Your task to perform on an android device: turn on notifications settings in the gmail app Image 0: 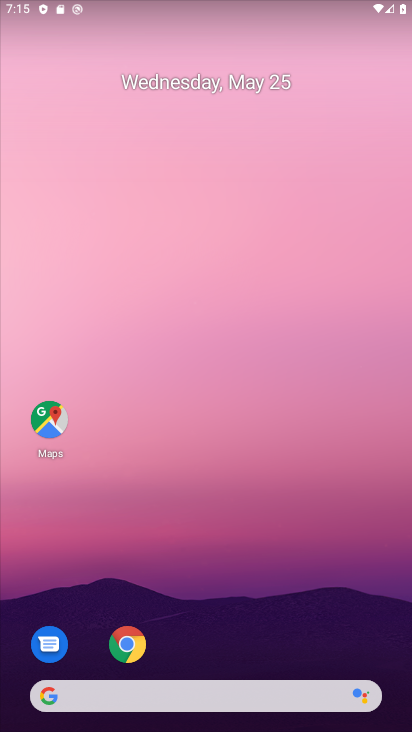
Step 0: drag from (170, 681) to (69, 15)
Your task to perform on an android device: turn on notifications settings in the gmail app Image 1: 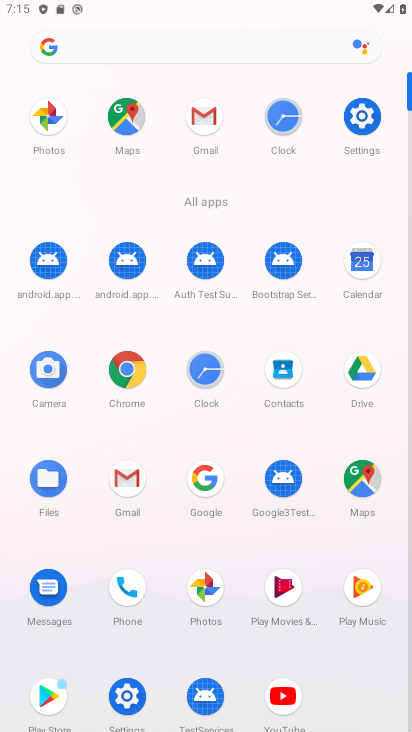
Step 1: click (128, 497)
Your task to perform on an android device: turn on notifications settings in the gmail app Image 2: 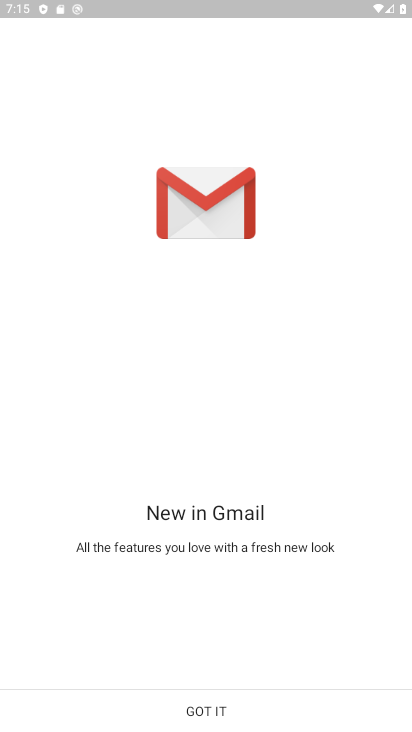
Step 2: click (249, 712)
Your task to perform on an android device: turn on notifications settings in the gmail app Image 3: 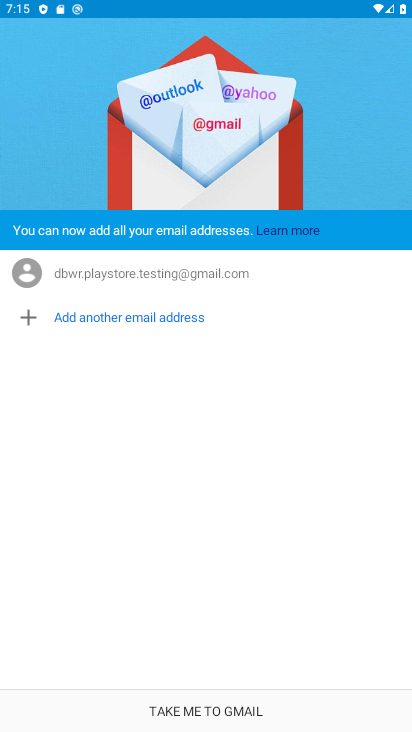
Step 3: click (249, 712)
Your task to perform on an android device: turn on notifications settings in the gmail app Image 4: 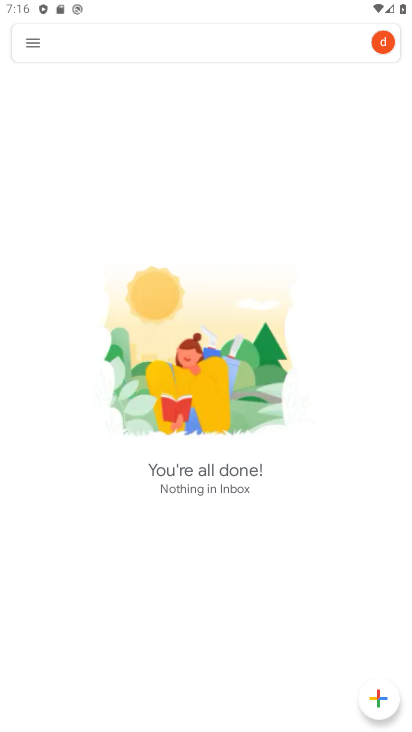
Step 4: click (43, 46)
Your task to perform on an android device: turn on notifications settings in the gmail app Image 5: 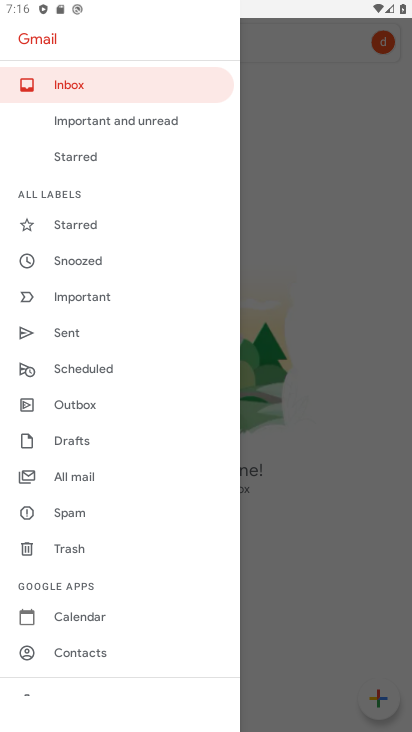
Step 5: drag from (89, 592) to (82, 164)
Your task to perform on an android device: turn on notifications settings in the gmail app Image 6: 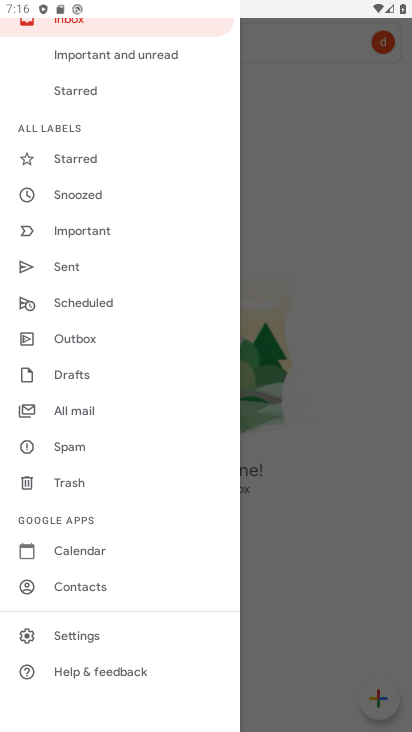
Step 6: click (88, 632)
Your task to perform on an android device: turn on notifications settings in the gmail app Image 7: 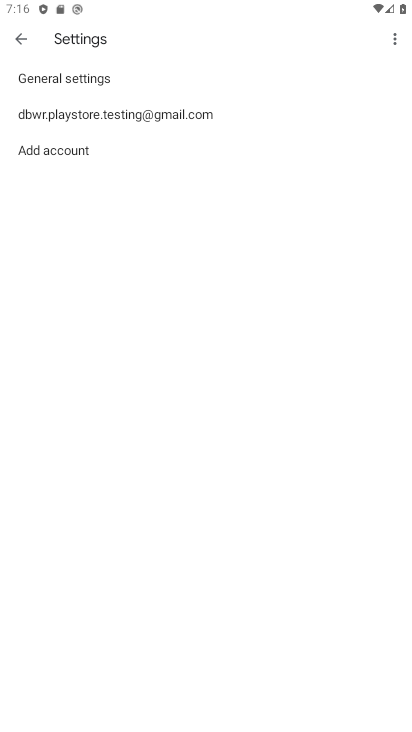
Step 7: click (98, 119)
Your task to perform on an android device: turn on notifications settings in the gmail app Image 8: 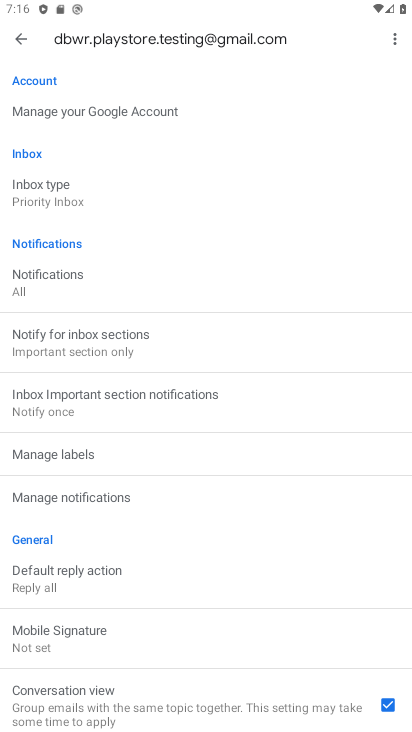
Step 8: click (111, 502)
Your task to perform on an android device: turn on notifications settings in the gmail app Image 9: 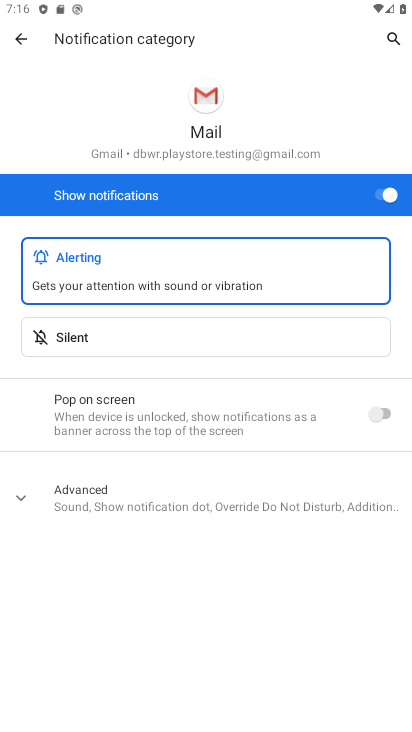
Step 9: task complete